Your task to perform on an android device: Add razer blackwidow to the cart on walmart, then select checkout. Image 0: 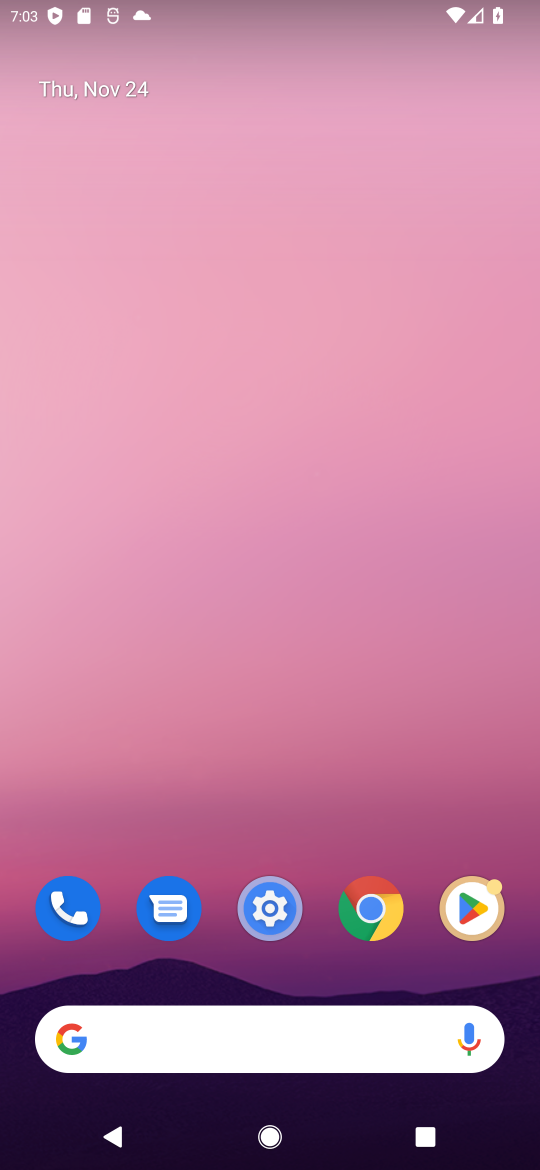
Step 0: click (225, 1037)
Your task to perform on an android device: Add razer blackwidow to the cart on walmart, then select checkout. Image 1: 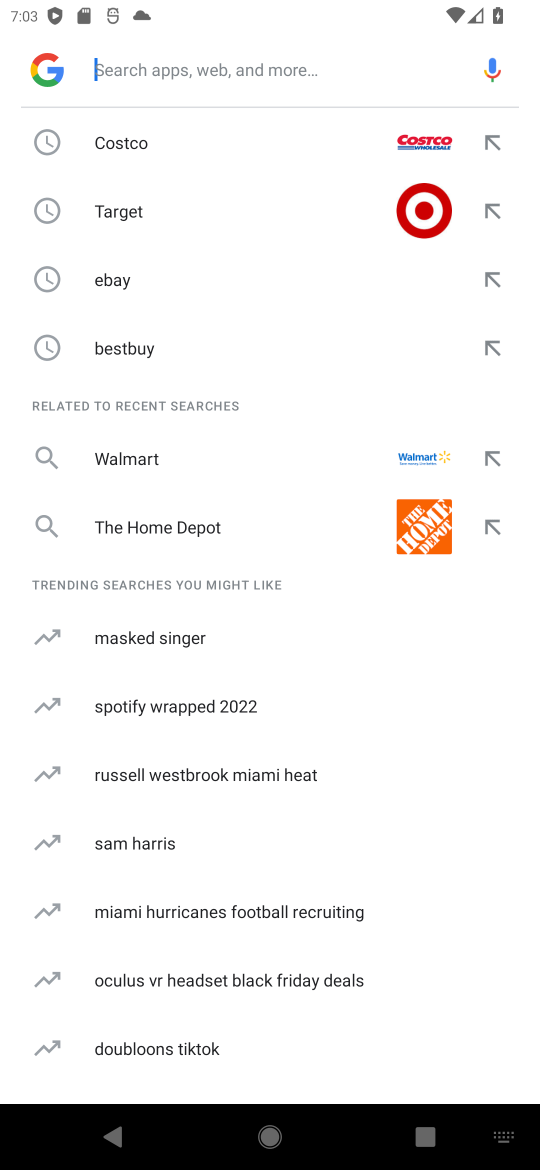
Step 1: type "walmart"
Your task to perform on an android device: Add razer blackwidow to the cart on walmart, then select checkout. Image 2: 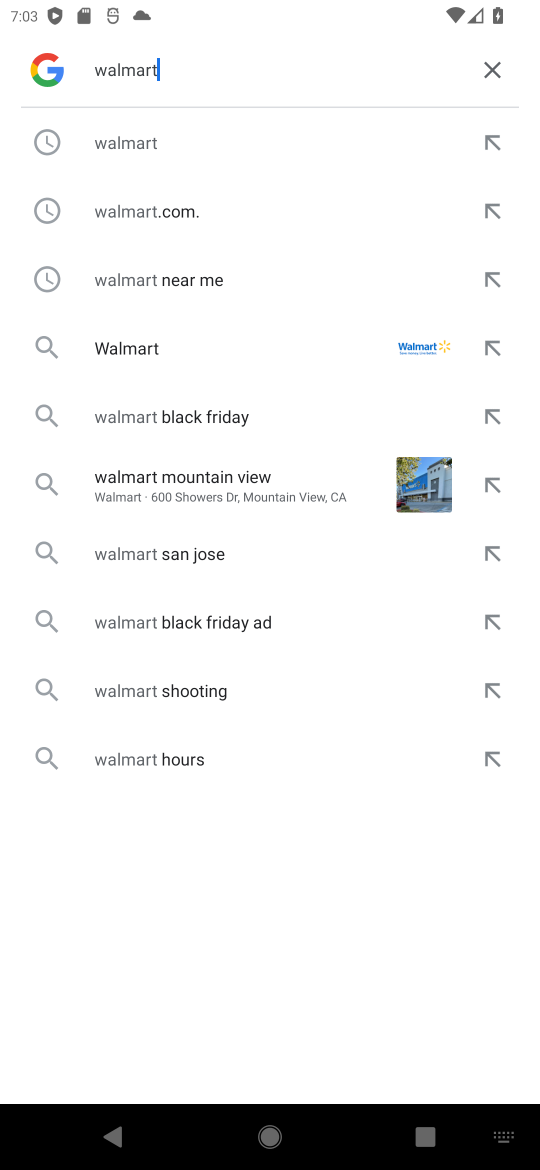
Step 2: click (287, 155)
Your task to perform on an android device: Add razer blackwidow to the cart on walmart, then select checkout. Image 3: 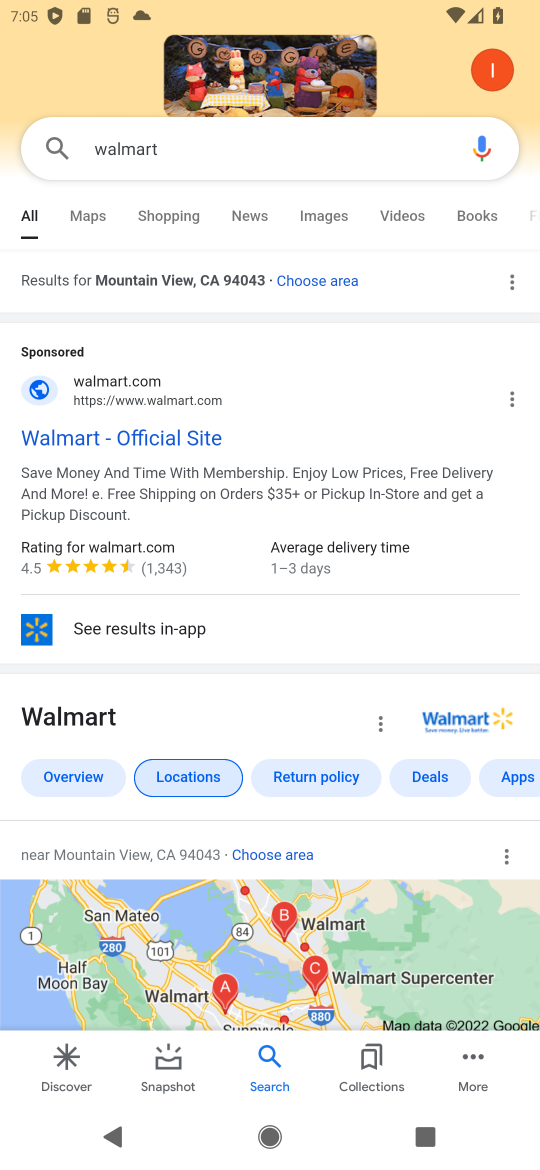
Step 3: click (91, 449)
Your task to perform on an android device: Add razer blackwidow to the cart on walmart, then select checkout. Image 4: 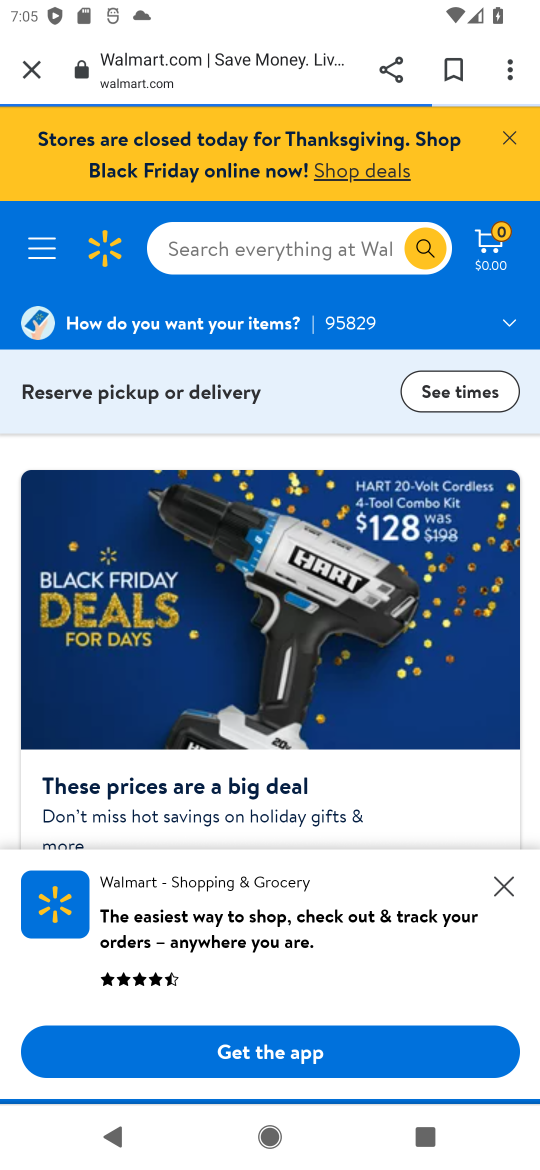
Step 4: click (318, 241)
Your task to perform on an android device: Add razer blackwidow to the cart on walmart, then select checkout. Image 5: 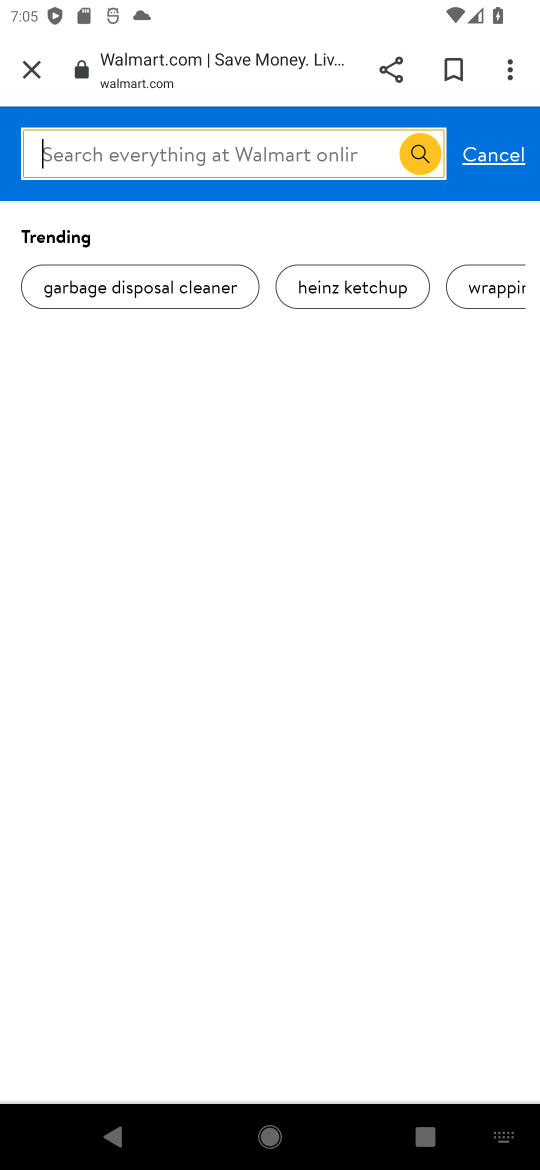
Step 5: type "razer blackwindow"
Your task to perform on an android device: Add razer blackwidow to the cart on walmart, then select checkout. Image 6: 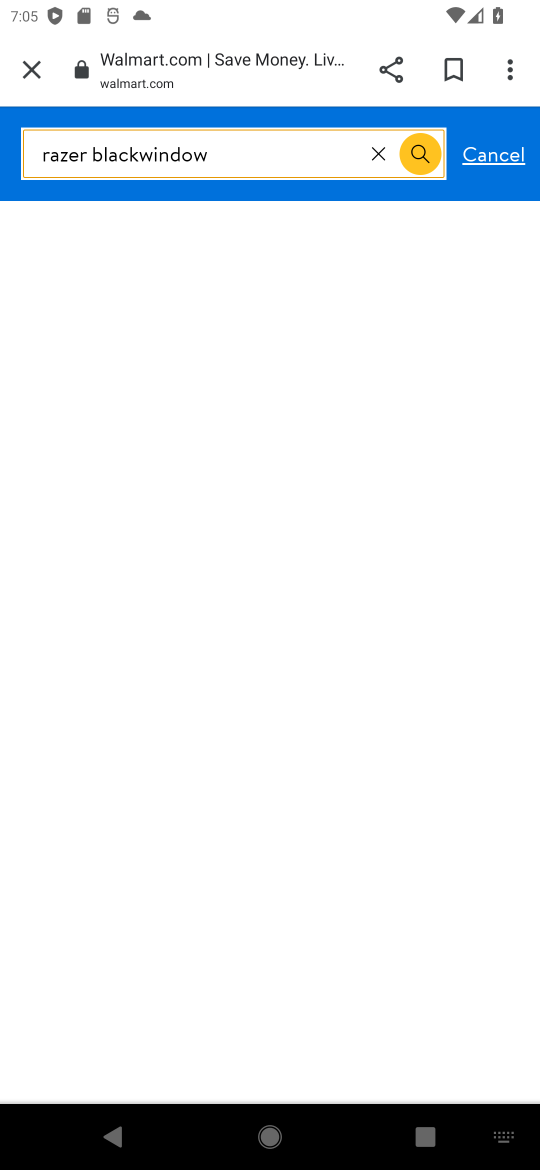
Step 6: click (422, 134)
Your task to perform on an android device: Add razer blackwidow to the cart on walmart, then select checkout. Image 7: 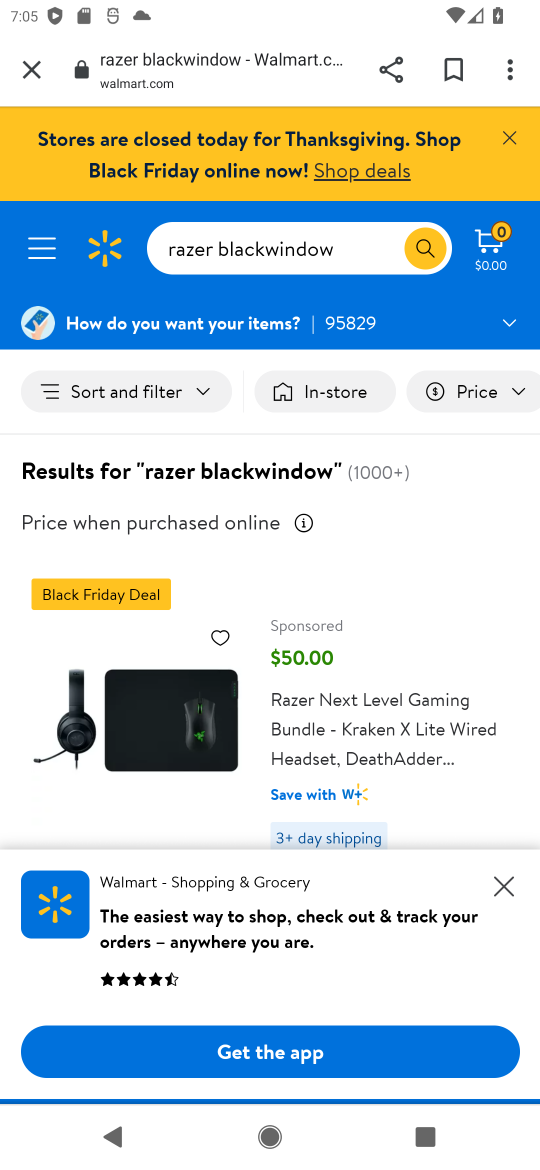
Step 7: click (495, 898)
Your task to perform on an android device: Add razer blackwidow to the cart on walmart, then select checkout. Image 8: 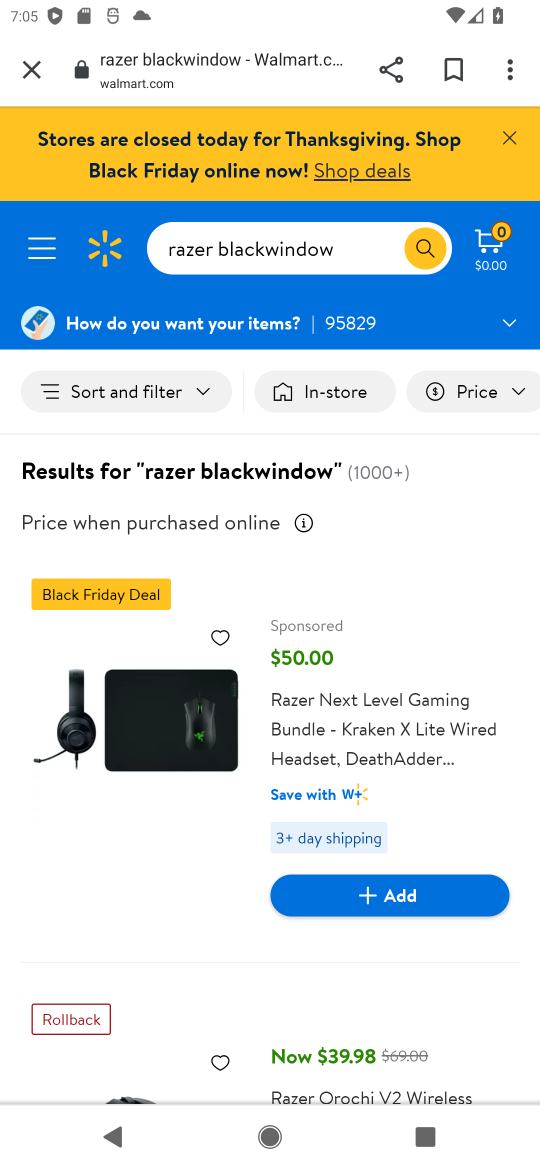
Step 8: click (495, 898)
Your task to perform on an android device: Add razer blackwidow to the cart on walmart, then select checkout. Image 9: 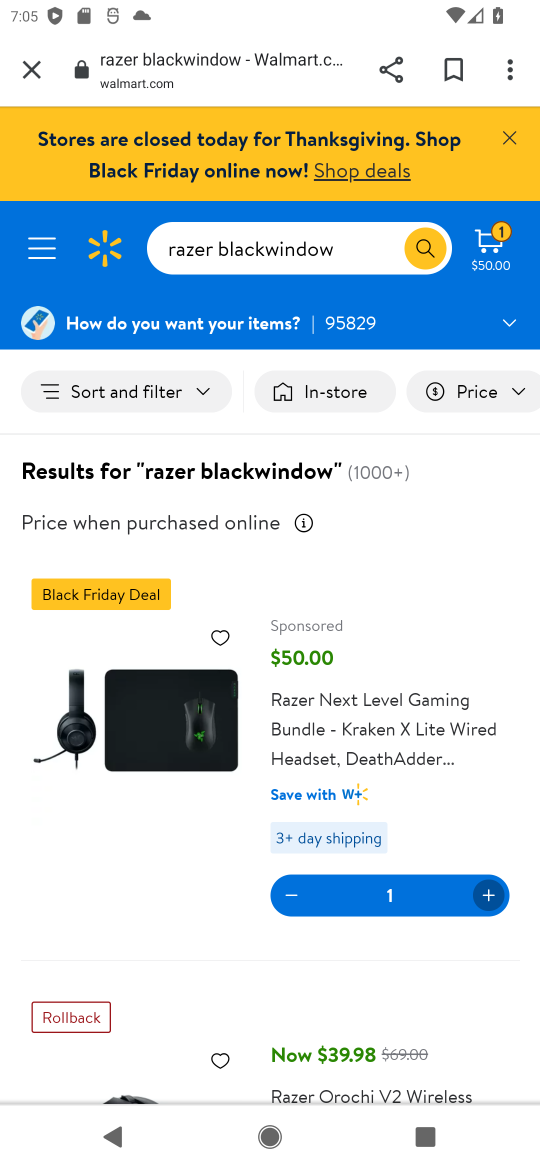
Step 9: task complete